Your task to perform on an android device: Go to calendar. Show me events next week Image 0: 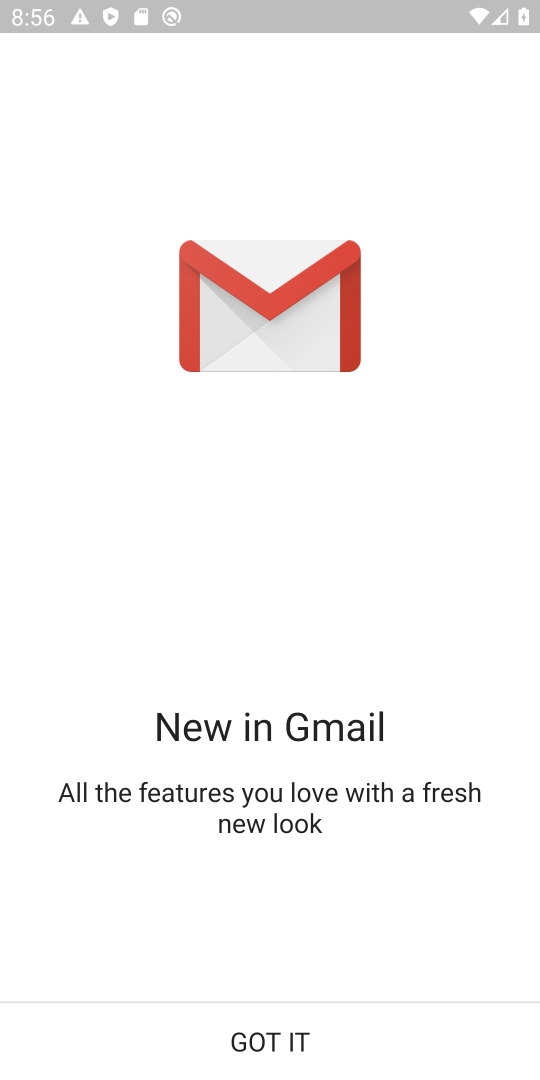
Step 0: press home button
Your task to perform on an android device: Go to calendar. Show me events next week Image 1: 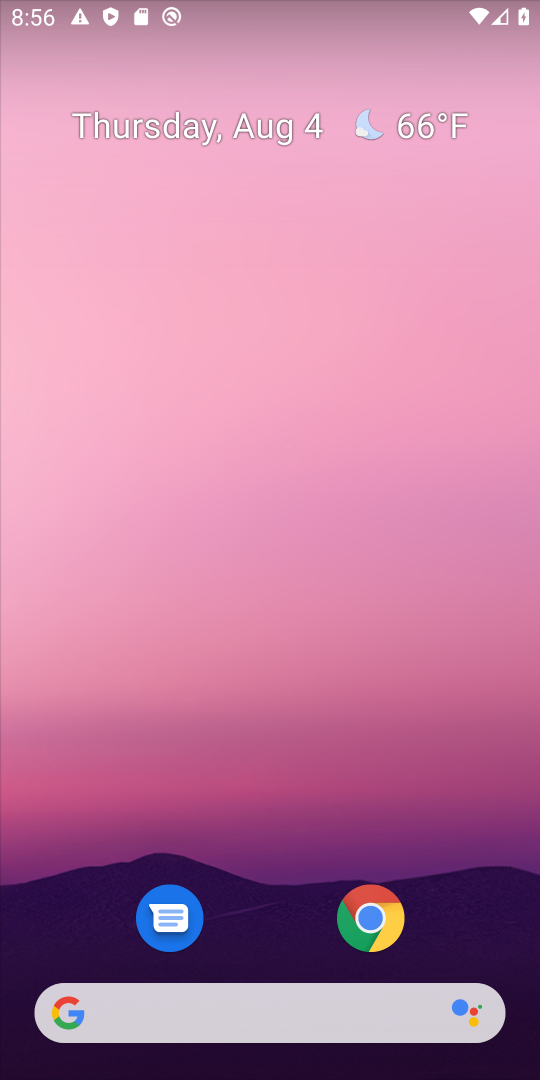
Step 1: drag from (265, 951) to (283, 235)
Your task to perform on an android device: Go to calendar. Show me events next week Image 2: 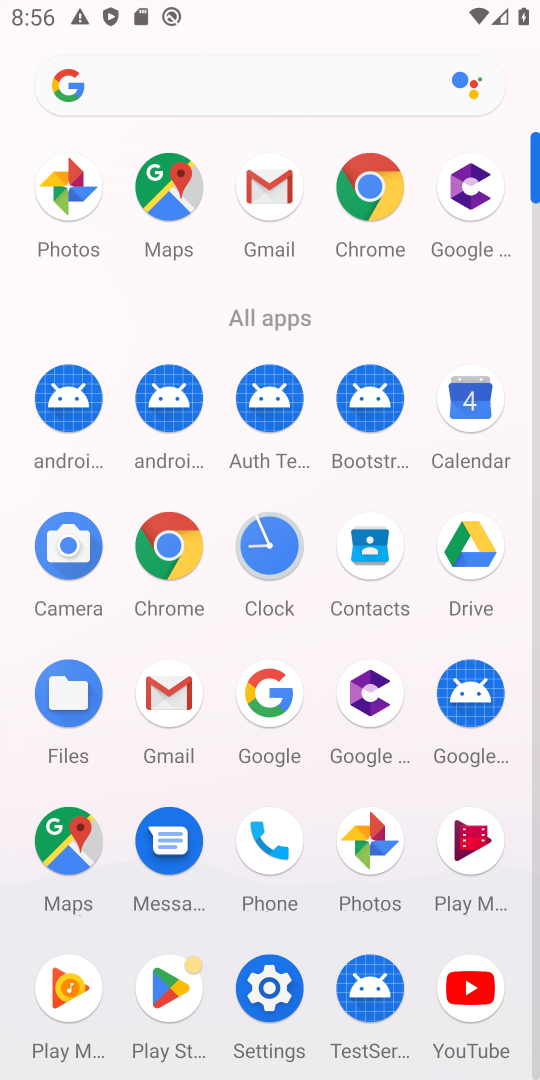
Step 2: click (458, 388)
Your task to perform on an android device: Go to calendar. Show me events next week Image 3: 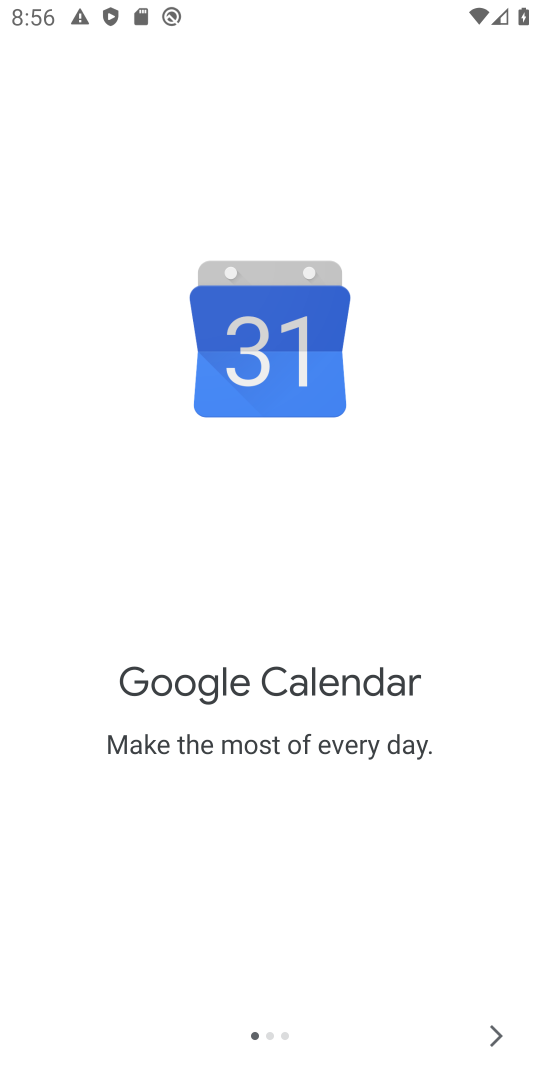
Step 3: click (493, 1030)
Your task to perform on an android device: Go to calendar. Show me events next week Image 4: 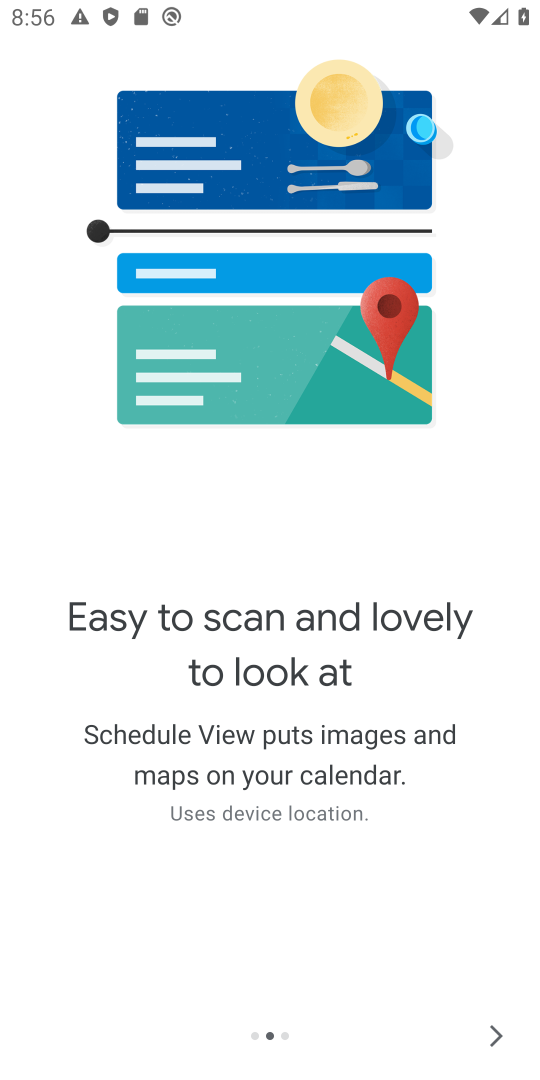
Step 4: click (493, 1030)
Your task to perform on an android device: Go to calendar. Show me events next week Image 5: 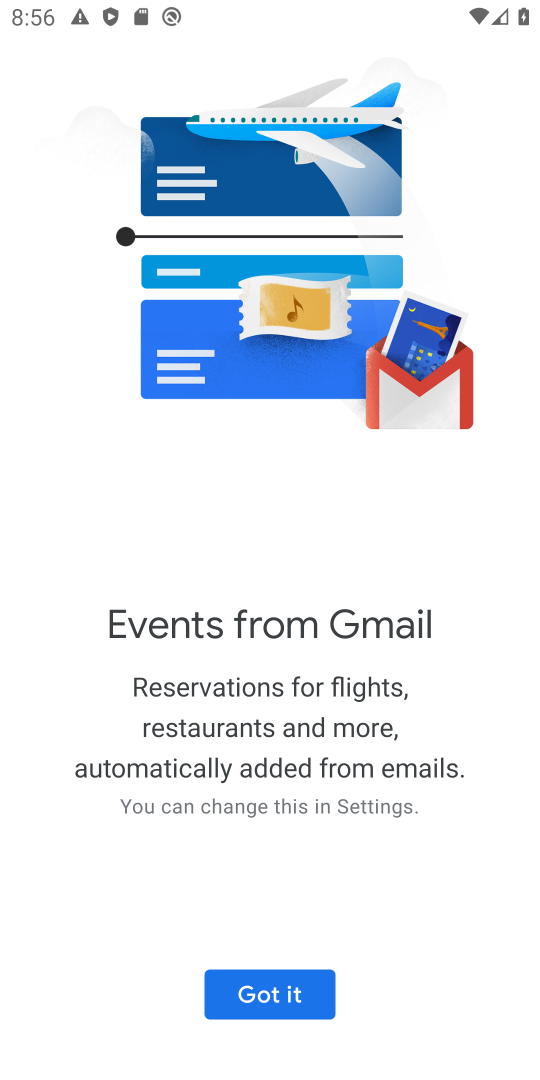
Step 5: click (267, 993)
Your task to perform on an android device: Go to calendar. Show me events next week Image 6: 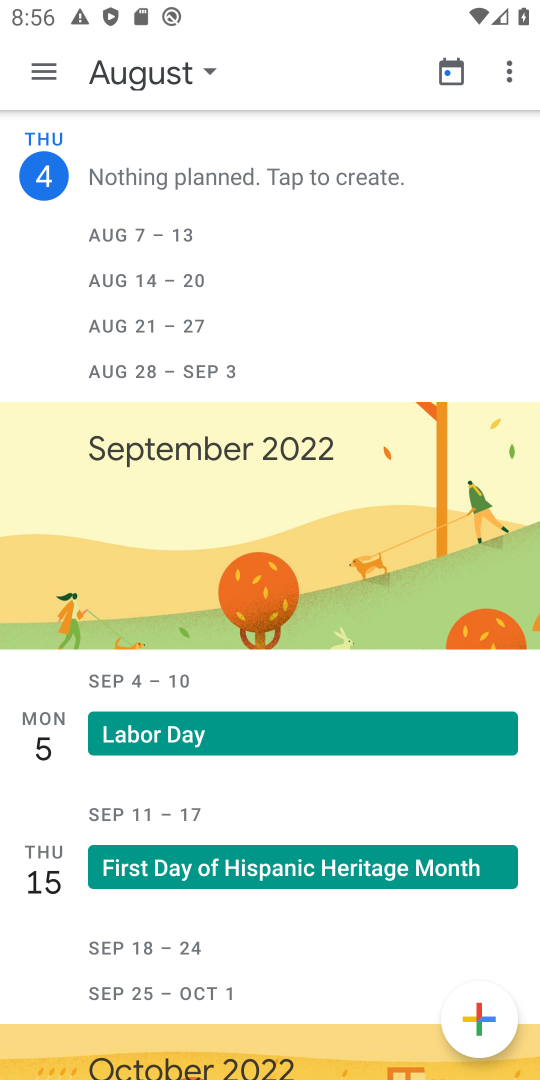
Step 6: click (43, 70)
Your task to perform on an android device: Go to calendar. Show me events next week Image 7: 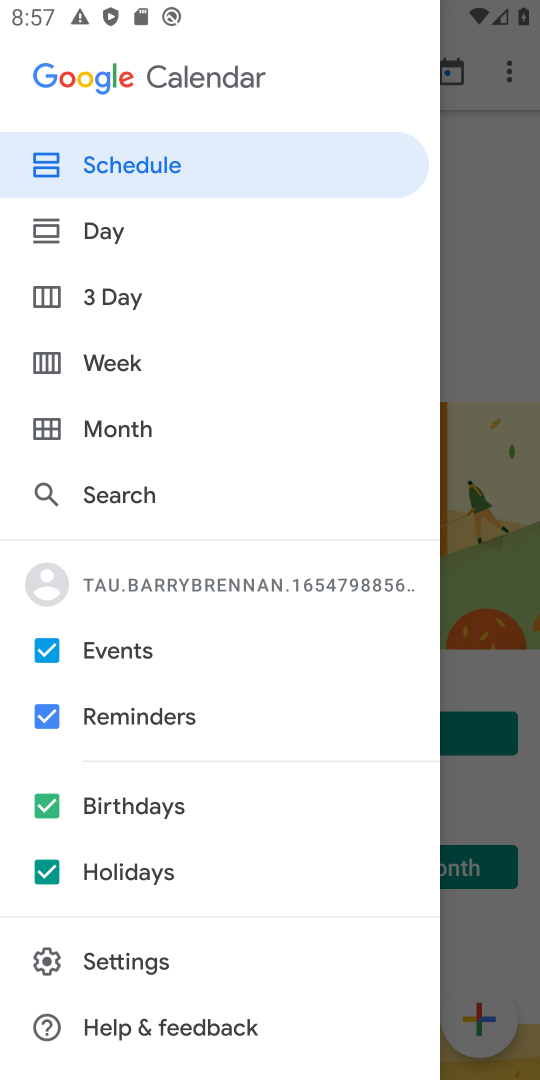
Step 7: click (47, 715)
Your task to perform on an android device: Go to calendar. Show me events next week Image 8: 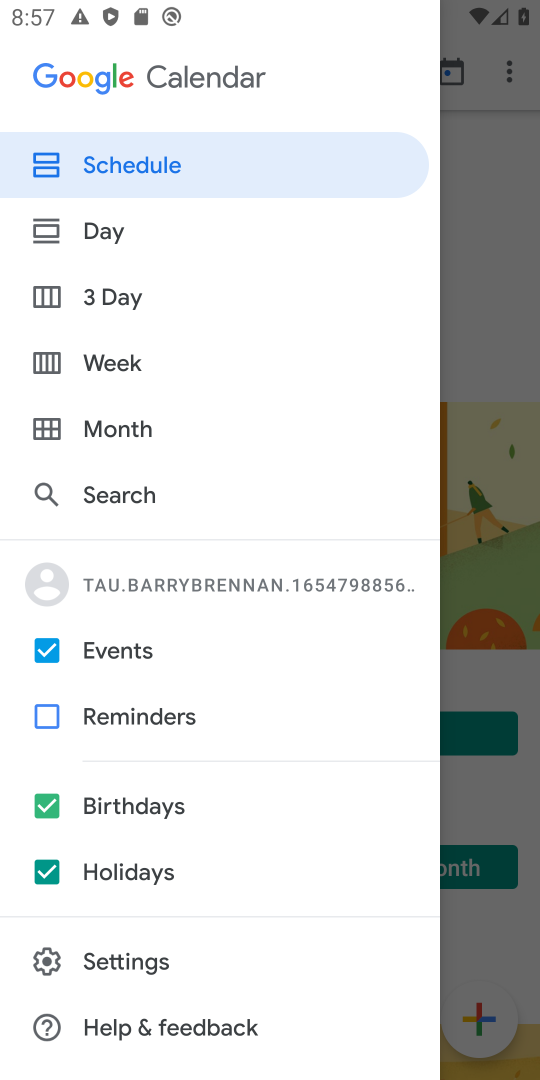
Step 8: click (51, 803)
Your task to perform on an android device: Go to calendar. Show me events next week Image 9: 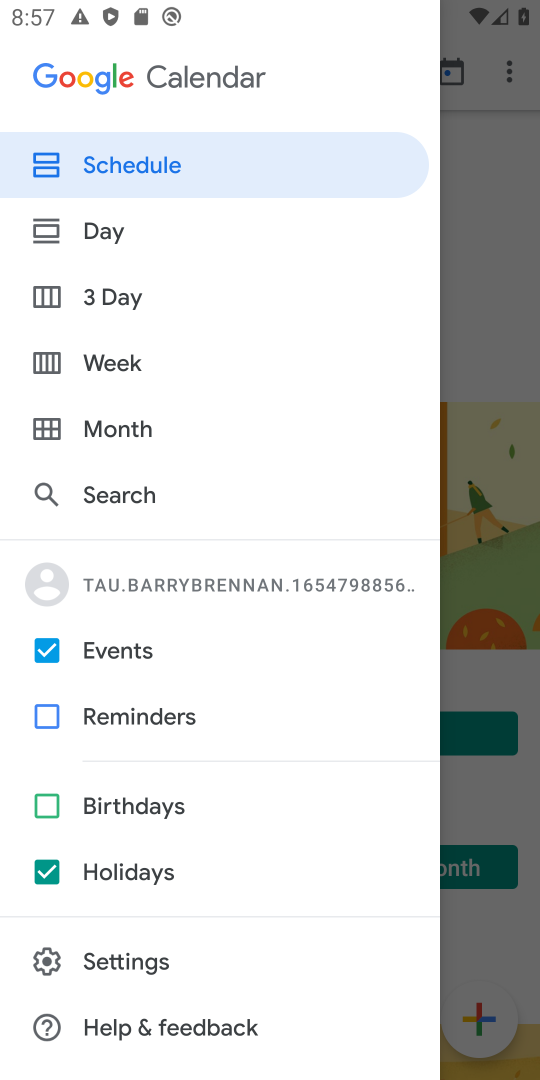
Step 9: click (46, 868)
Your task to perform on an android device: Go to calendar. Show me events next week Image 10: 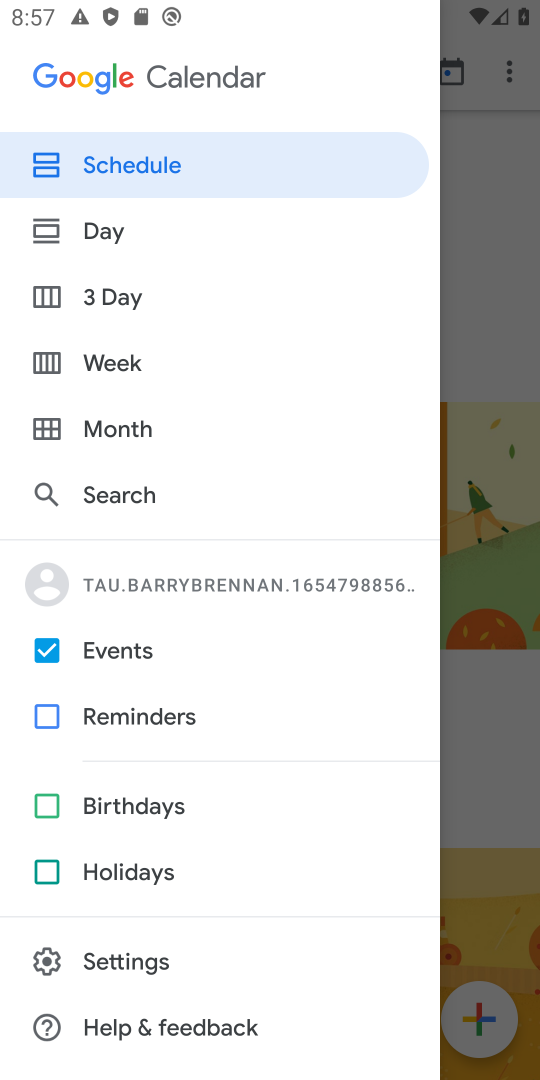
Step 10: click (73, 358)
Your task to perform on an android device: Go to calendar. Show me events next week Image 11: 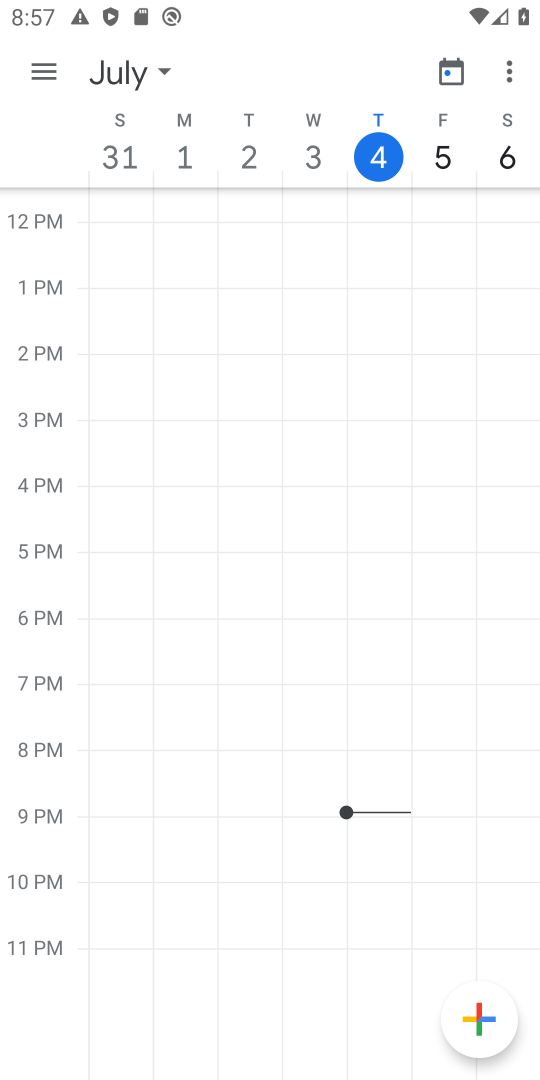
Step 11: task complete